Your task to perform on an android device: Search for Italian restaurants on Maps Image 0: 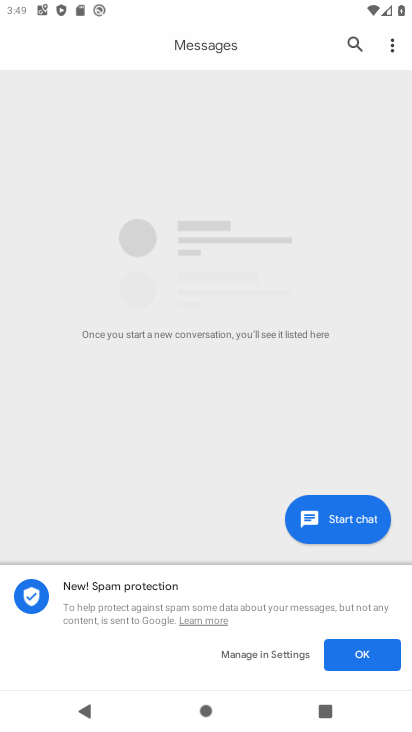
Step 0: press home button
Your task to perform on an android device: Search for Italian restaurants on Maps Image 1: 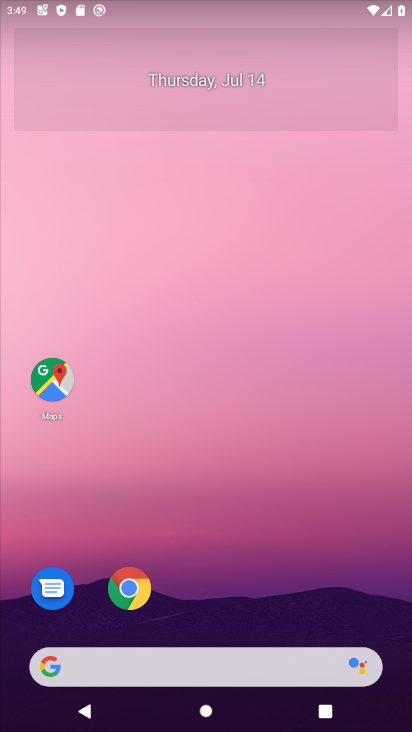
Step 1: drag from (309, 568) to (308, 22)
Your task to perform on an android device: Search for Italian restaurants on Maps Image 2: 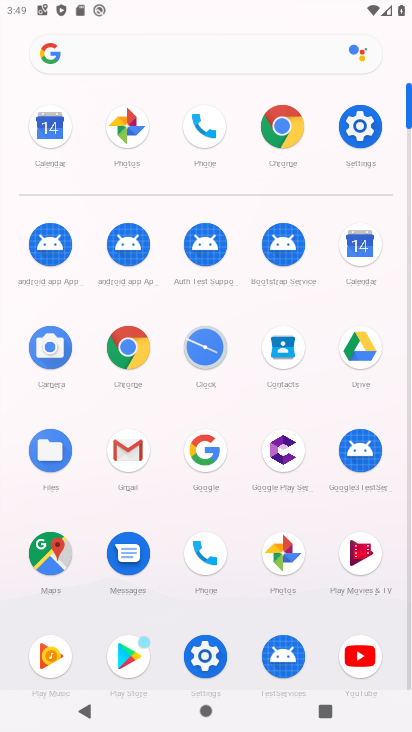
Step 2: click (45, 556)
Your task to perform on an android device: Search for Italian restaurants on Maps Image 3: 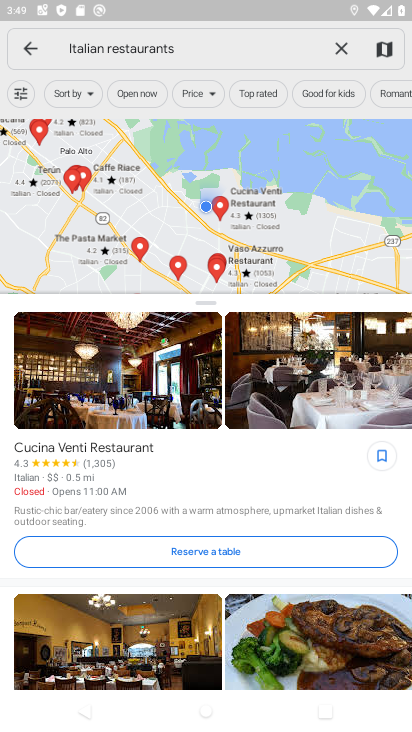
Step 3: task complete